Your task to perform on an android device: change the upload size in google photos Image 0: 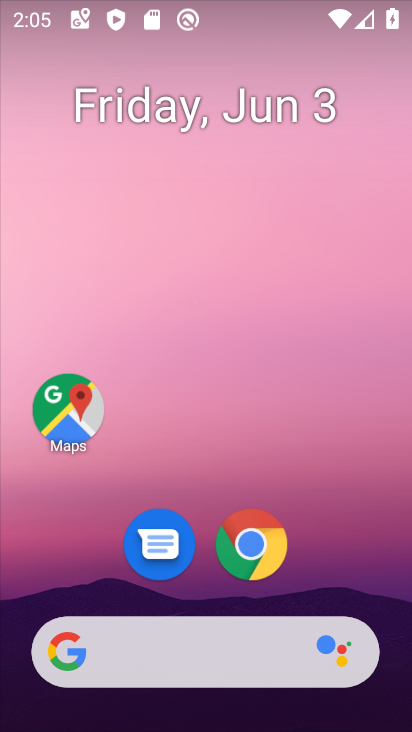
Step 0: drag from (344, 558) to (346, 198)
Your task to perform on an android device: change the upload size in google photos Image 1: 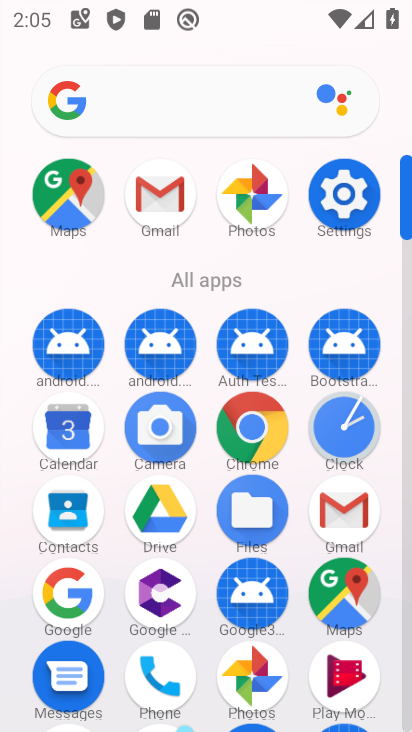
Step 1: click (252, 682)
Your task to perform on an android device: change the upload size in google photos Image 2: 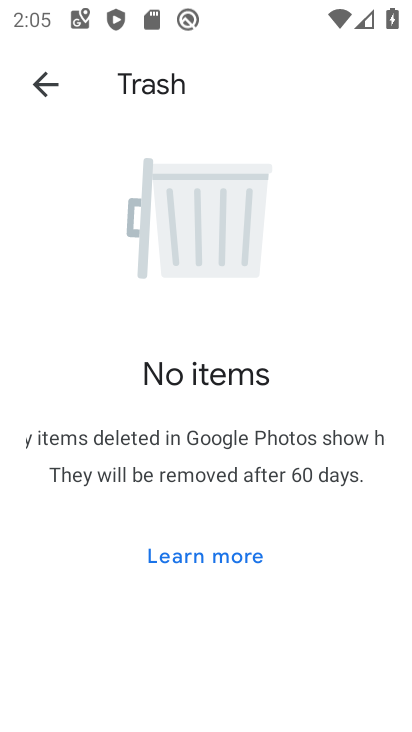
Step 2: click (45, 92)
Your task to perform on an android device: change the upload size in google photos Image 3: 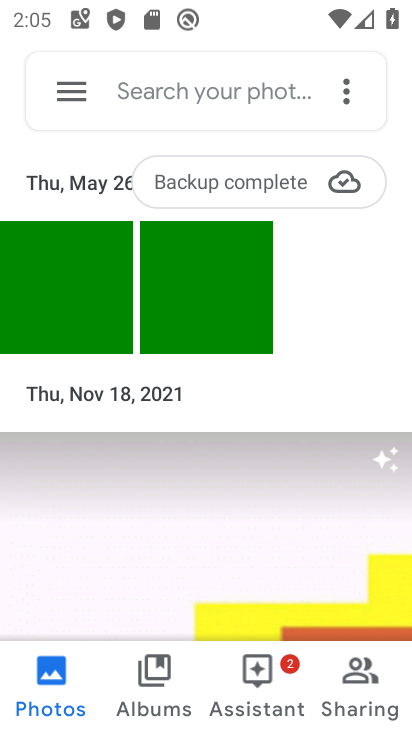
Step 3: click (47, 91)
Your task to perform on an android device: change the upload size in google photos Image 4: 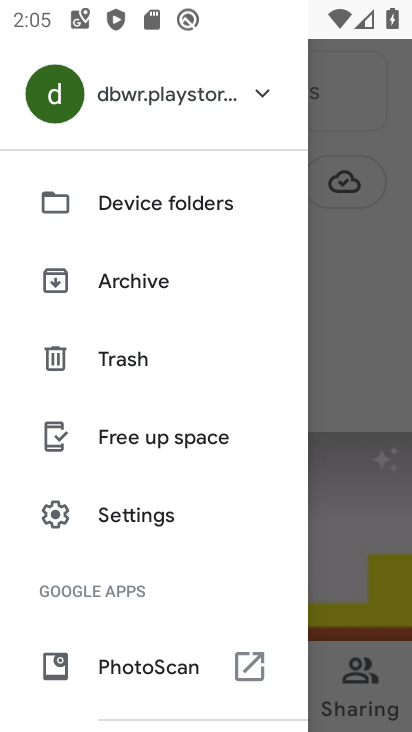
Step 4: click (152, 523)
Your task to perform on an android device: change the upload size in google photos Image 5: 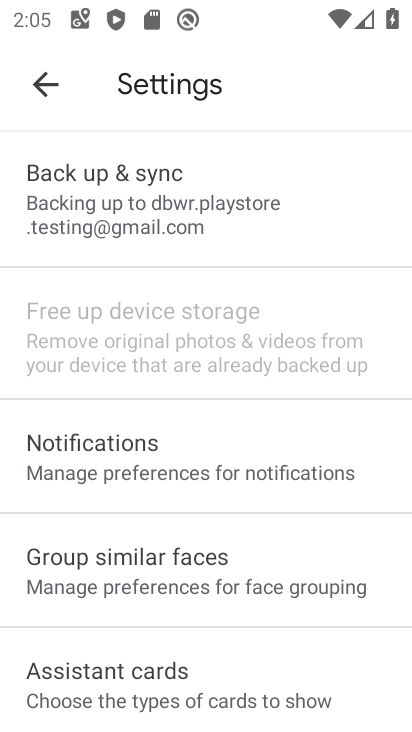
Step 5: click (174, 217)
Your task to perform on an android device: change the upload size in google photos Image 6: 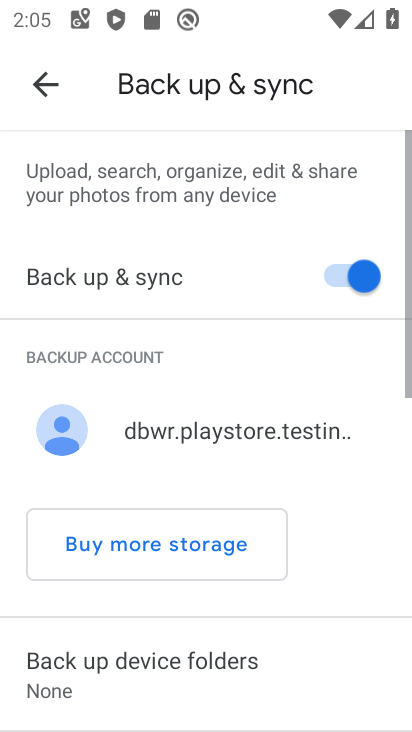
Step 6: drag from (341, 567) to (293, 243)
Your task to perform on an android device: change the upload size in google photos Image 7: 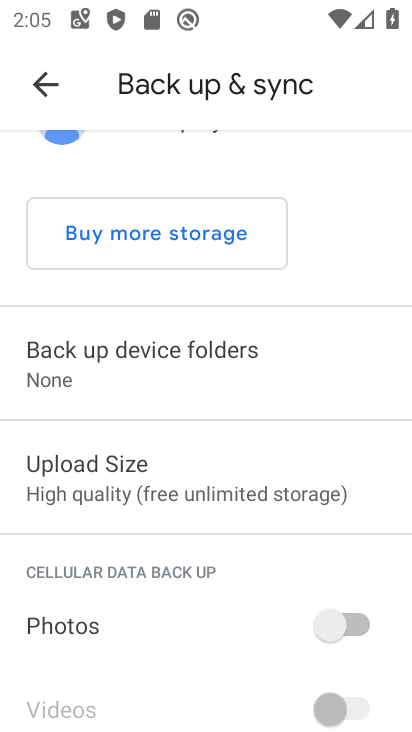
Step 7: click (295, 489)
Your task to perform on an android device: change the upload size in google photos Image 8: 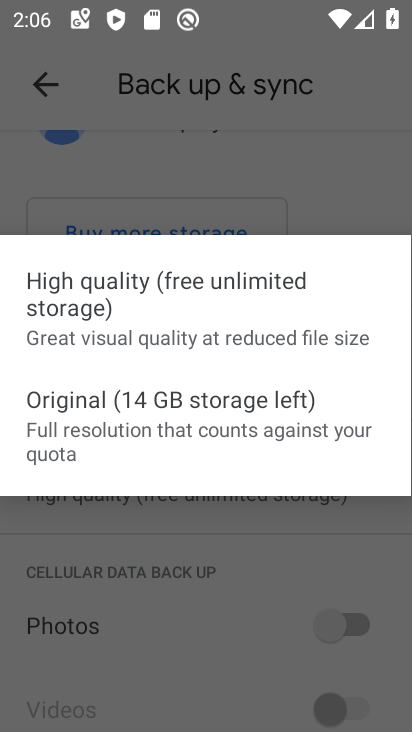
Step 8: task complete